Your task to perform on an android device: Toggle the flashlight Image 0: 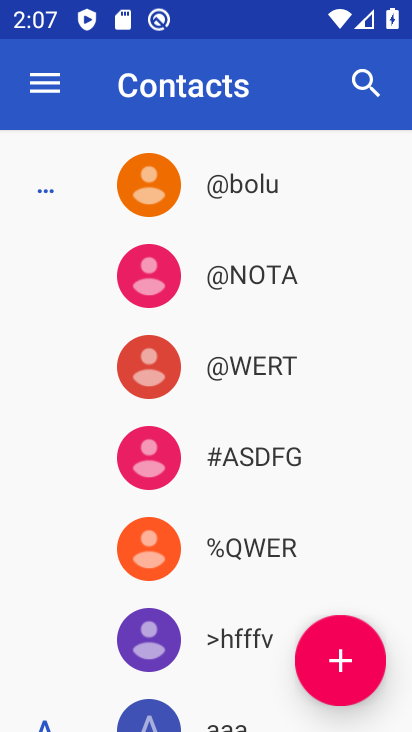
Step 0: click (105, 195)
Your task to perform on an android device: Toggle the flashlight Image 1: 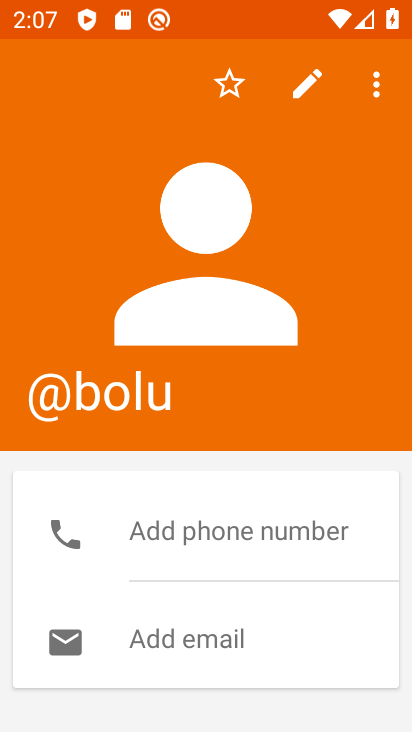
Step 1: press home button
Your task to perform on an android device: Toggle the flashlight Image 2: 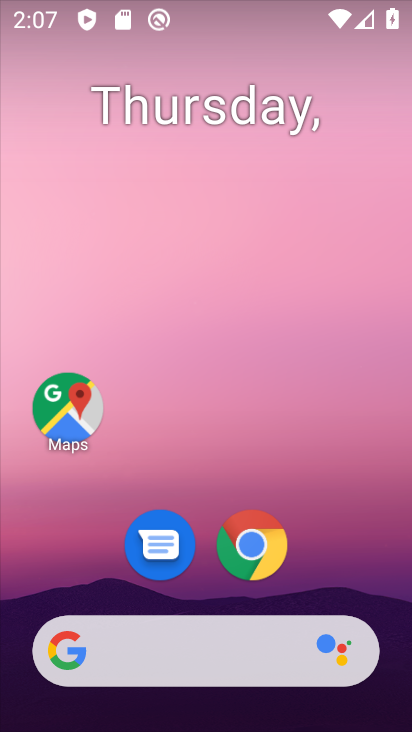
Step 2: drag from (206, 16) to (250, 508)
Your task to perform on an android device: Toggle the flashlight Image 3: 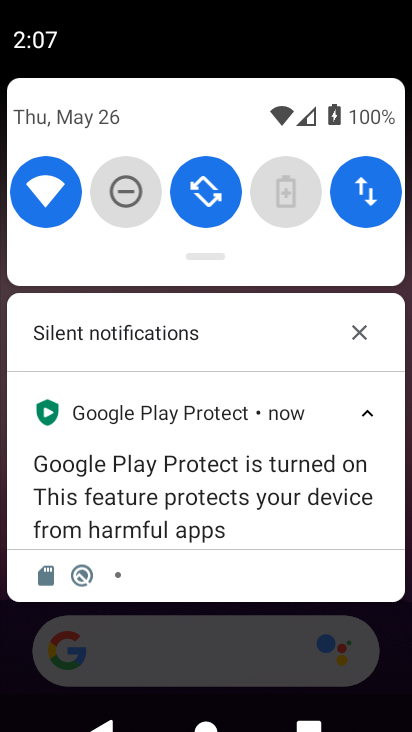
Step 3: drag from (368, 157) to (65, 180)
Your task to perform on an android device: Toggle the flashlight Image 4: 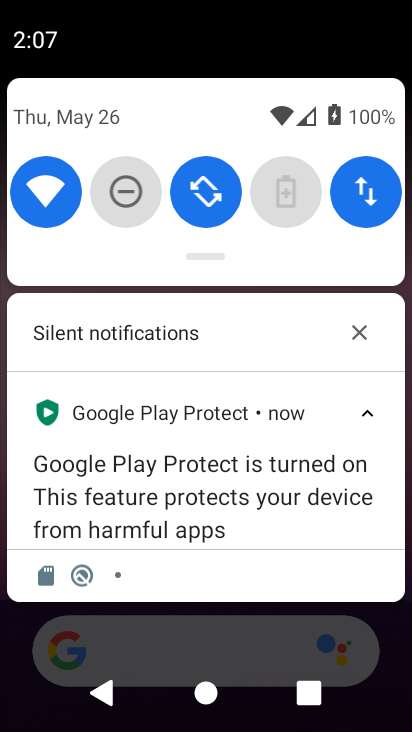
Step 4: click (362, 338)
Your task to perform on an android device: Toggle the flashlight Image 5: 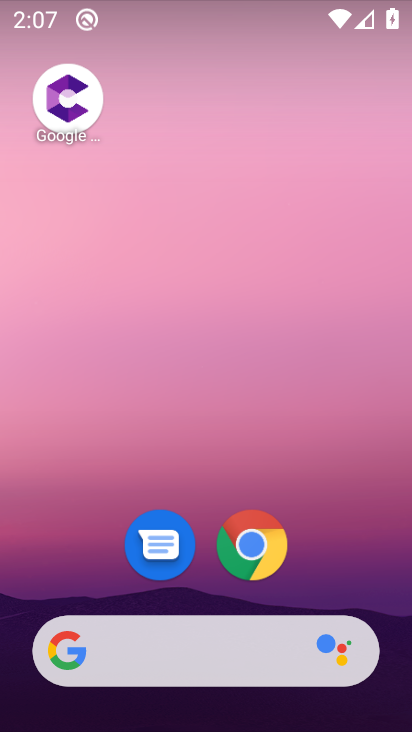
Step 5: task complete